Your task to perform on an android device: toggle priority inbox in the gmail app Image 0: 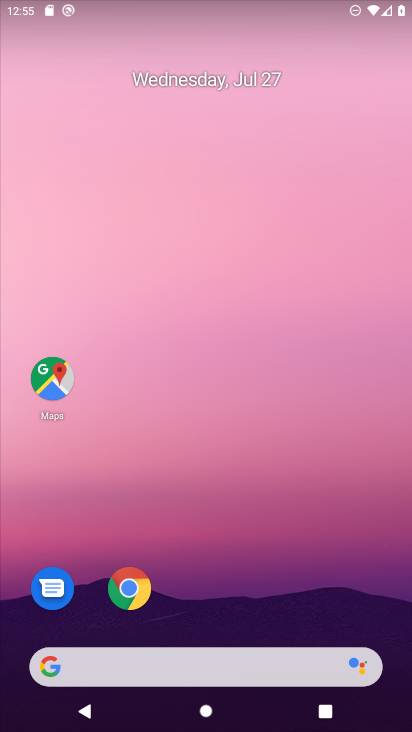
Step 0: drag from (38, 688) to (179, 215)
Your task to perform on an android device: toggle priority inbox in the gmail app Image 1: 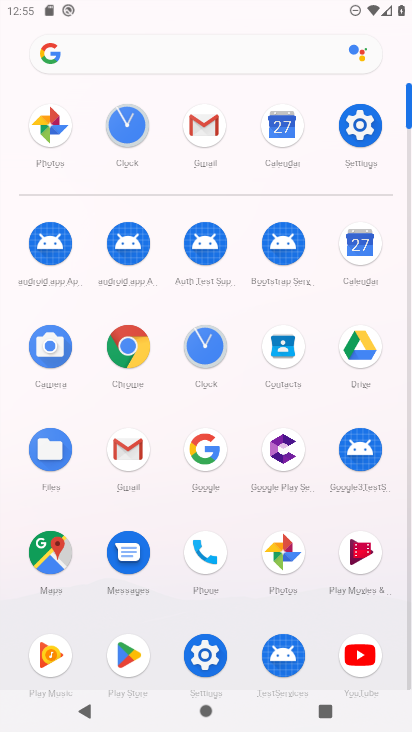
Step 1: click (134, 467)
Your task to perform on an android device: toggle priority inbox in the gmail app Image 2: 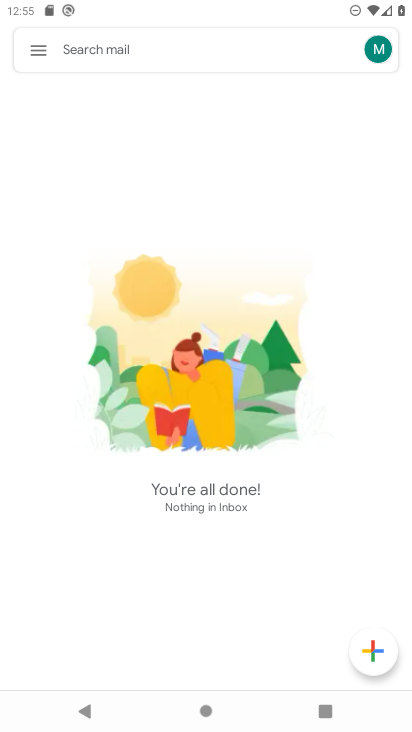
Step 2: click (37, 50)
Your task to perform on an android device: toggle priority inbox in the gmail app Image 3: 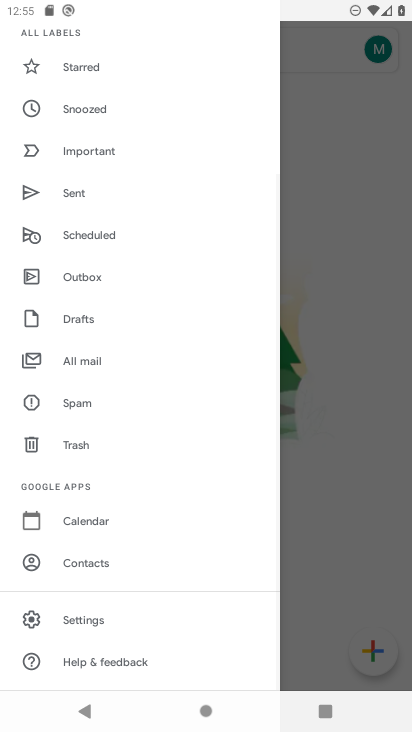
Step 3: click (48, 46)
Your task to perform on an android device: toggle priority inbox in the gmail app Image 4: 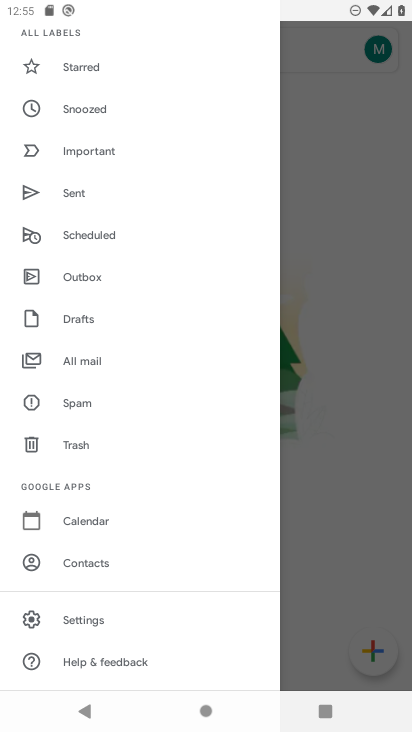
Step 4: click (77, 625)
Your task to perform on an android device: toggle priority inbox in the gmail app Image 5: 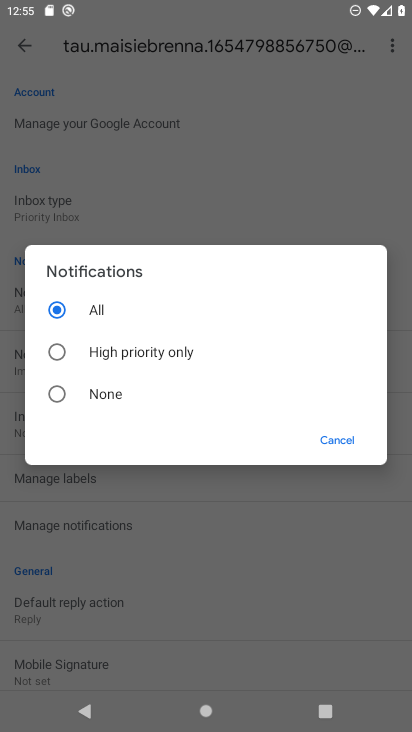
Step 5: click (348, 445)
Your task to perform on an android device: toggle priority inbox in the gmail app Image 6: 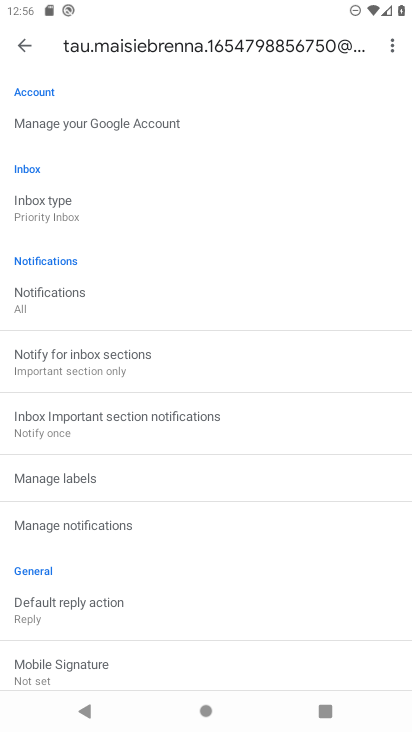
Step 6: task complete